Your task to perform on an android device: Search for pizza restaurants on Maps Image 0: 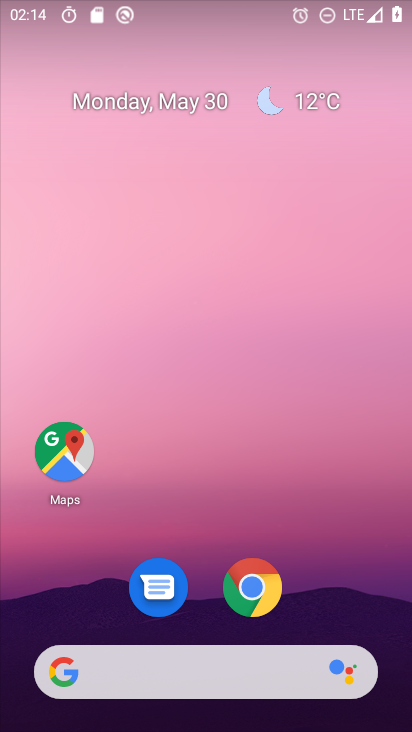
Step 0: click (57, 451)
Your task to perform on an android device: Search for pizza restaurants on Maps Image 1: 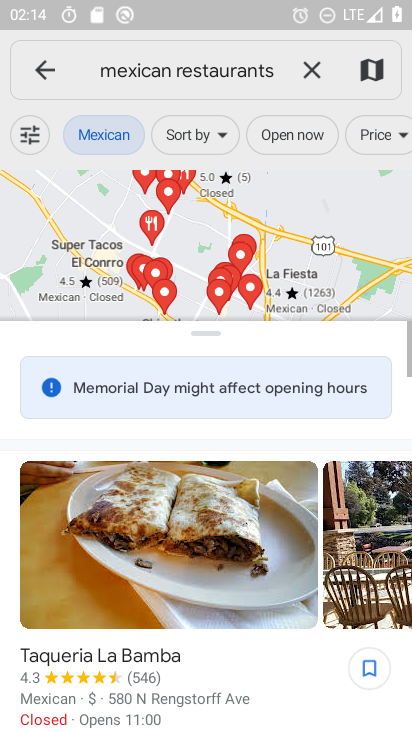
Step 1: click (283, 70)
Your task to perform on an android device: Search for pizza restaurants on Maps Image 2: 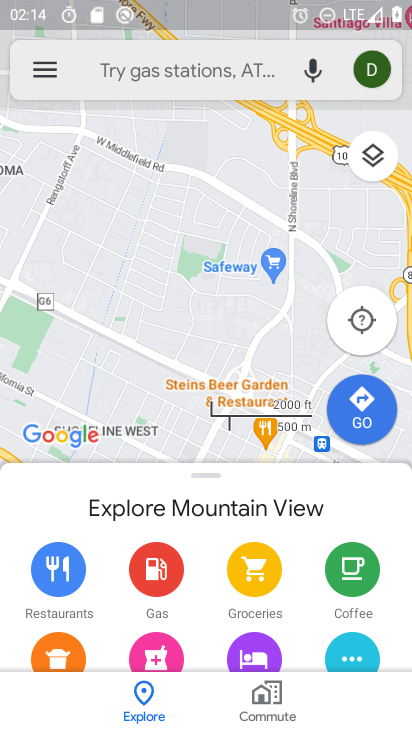
Step 2: click (226, 72)
Your task to perform on an android device: Search for pizza restaurants on Maps Image 3: 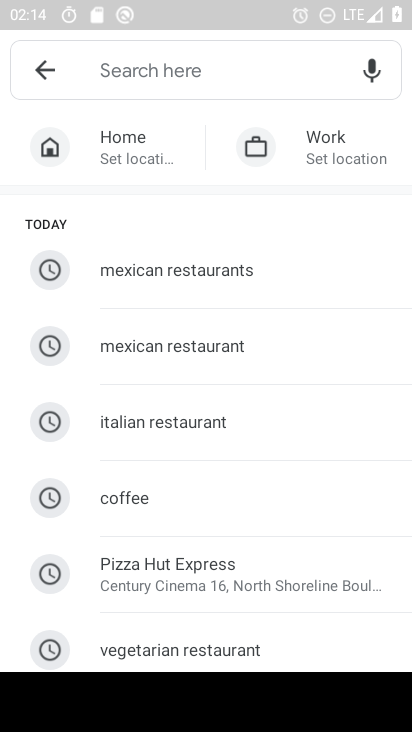
Step 3: type "pizza restaurats"
Your task to perform on an android device: Search for pizza restaurants on Maps Image 4: 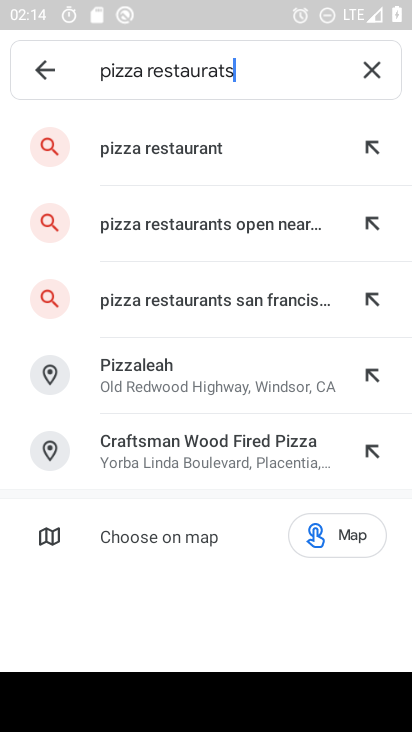
Step 4: press enter
Your task to perform on an android device: Search for pizza restaurants on Maps Image 5: 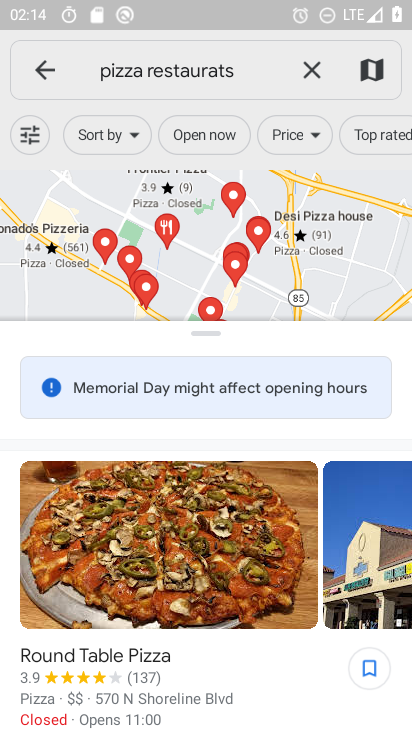
Step 5: task complete